Your task to perform on an android device: Open the stopwatch Image 0: 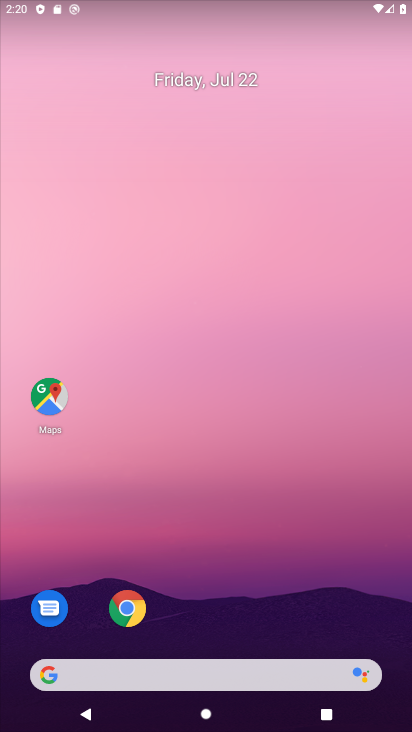
Step 0: drag from (181, 654) to (181, 123)
Your task to perform on an android device: Open the stopwatch Image 1: 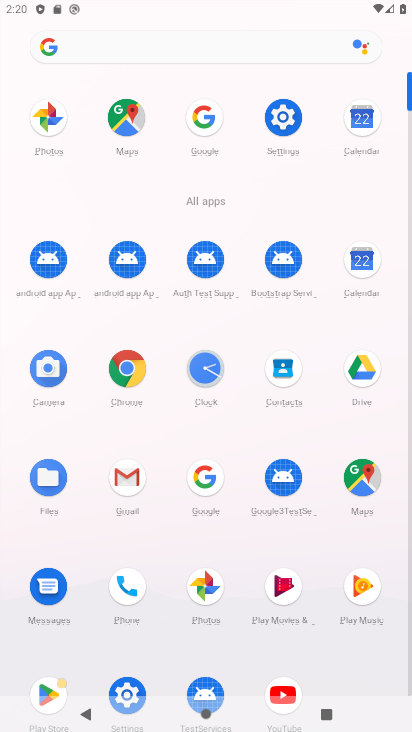
Step 1: click (215, 376)
Your task to perform on an android device: Open the stopwatch Image 2: 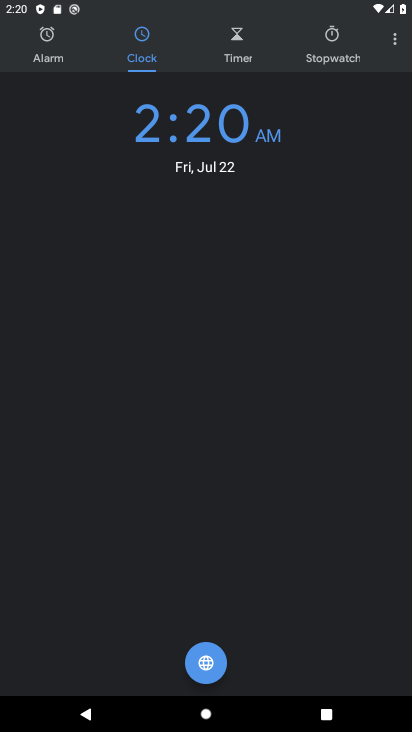
Step 2: click (316, 51)
Your task to perform on an android device: Open the stopwatch Image 3: 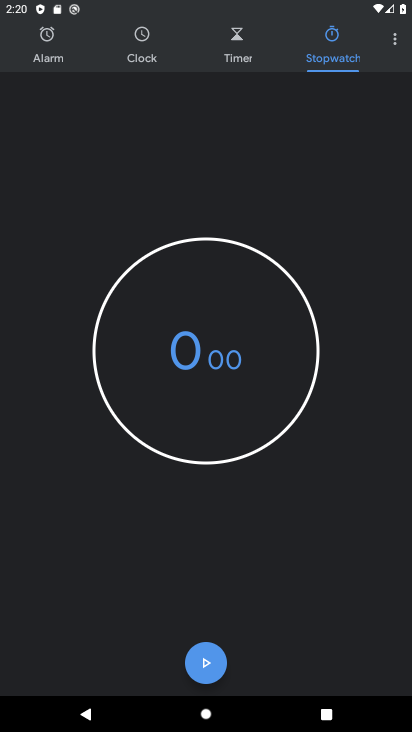
Step 3: click (202, 669)
Your task to perform on an android device: Open the stopwatch Image 4: 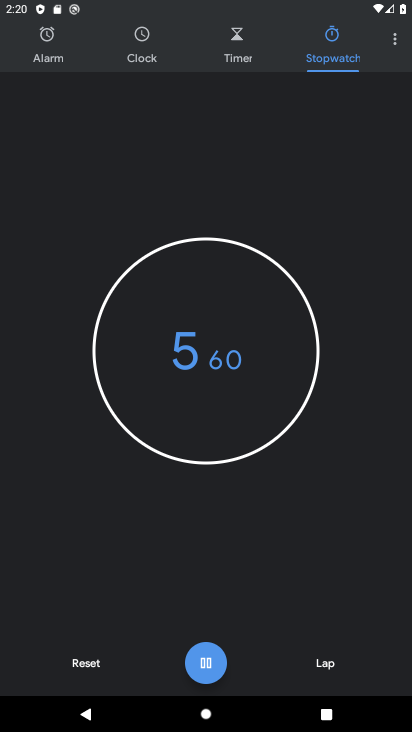
Step 4: click (204, 667)
Your task to perform on an android device: Open the stopwatch Image 5: 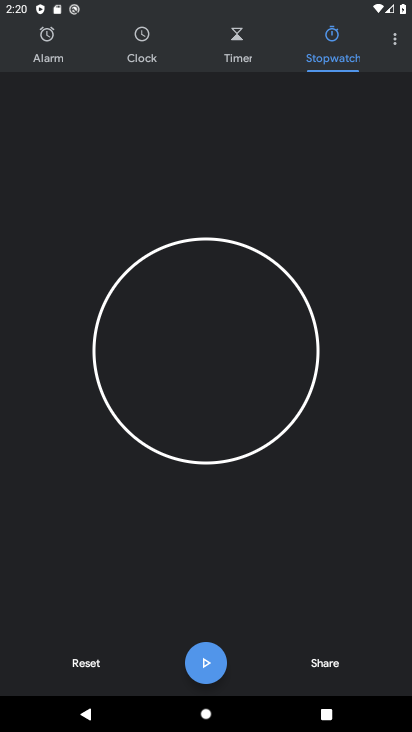
Step 5: task complete